Your task to perform on an android device: turn vacation reply on in the gmail app Image 0: 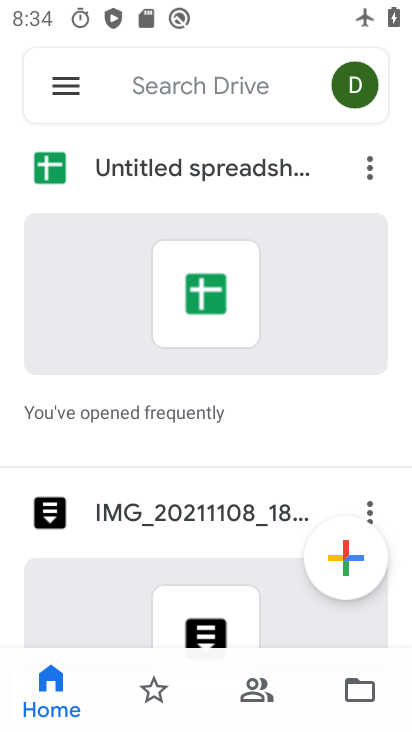
Step 0: press home button
Your task to perform on an android device: turn vacation reply on in the gmail app Image 1: 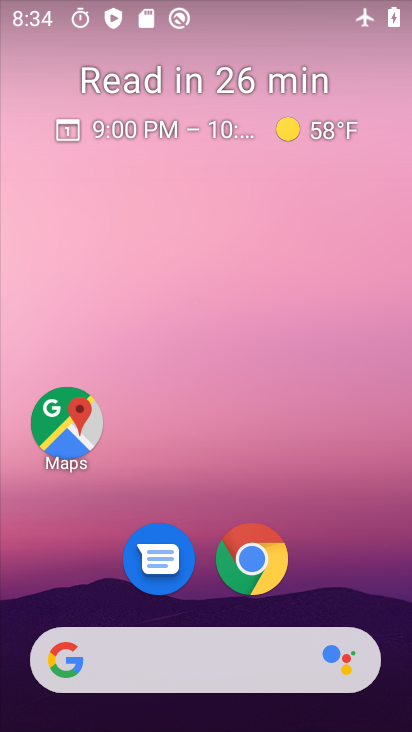
Step 1: drag from (332, 564) to (374, 75)
Your task to perform on an android device: turn vacation reply on in the gmail app Image 2: 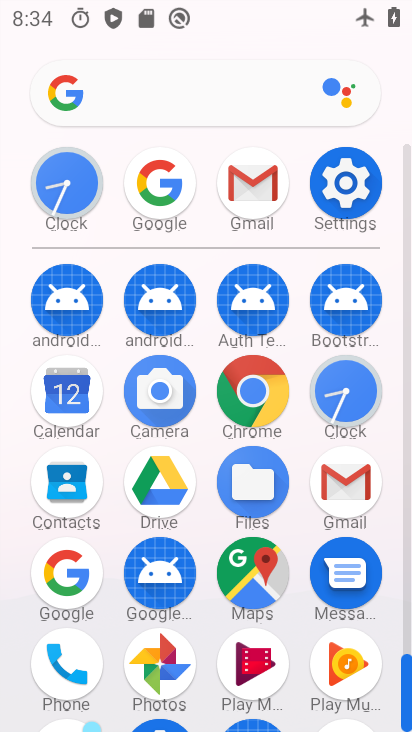
Step 2: click (334, 492)
Your task to perform on an android device: turn vacation reply on in the gmail app Image 3: 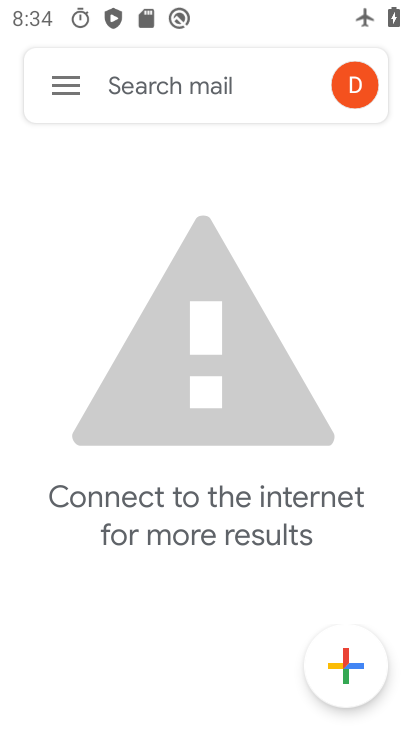
Step 3: click (61, 76)
Your task to perform on an android device: turn vacation reply on in the gmail app Image 4: 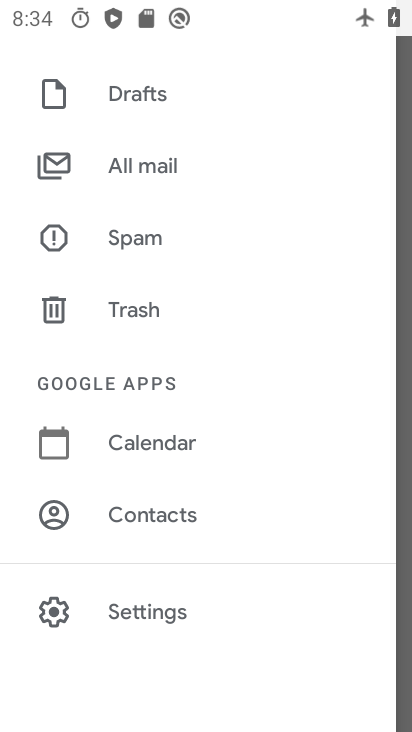
Step 4: click (138, 616)
Your task to perform on an android device: turn vacation reply on in the gmail app Image 5: 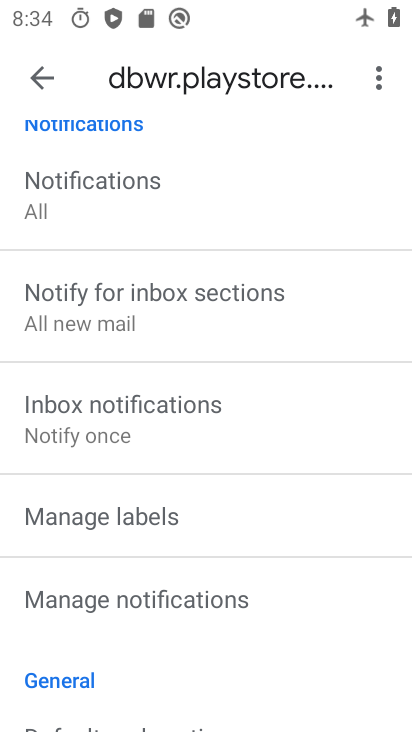
Step 5: drag from (126, 568) to (170, 293)
Your task to perform on an android device: turn vacation reply on in the gmail app Image 6: 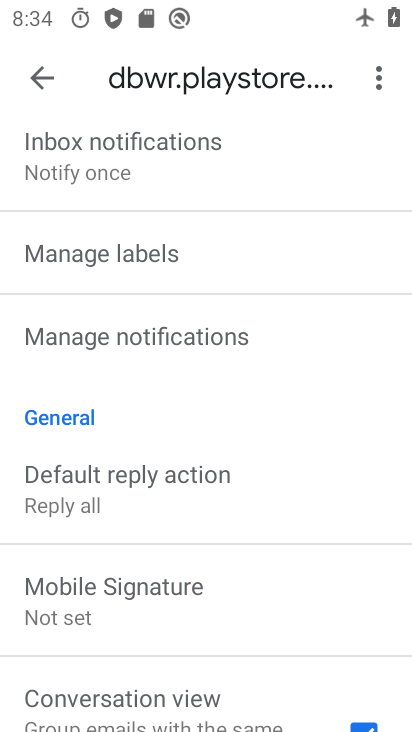
Step 6: drag from (95, 648) to (144, 357)
Your task to perform on an android device: turn vacation reply on in the gmail app Image 7: 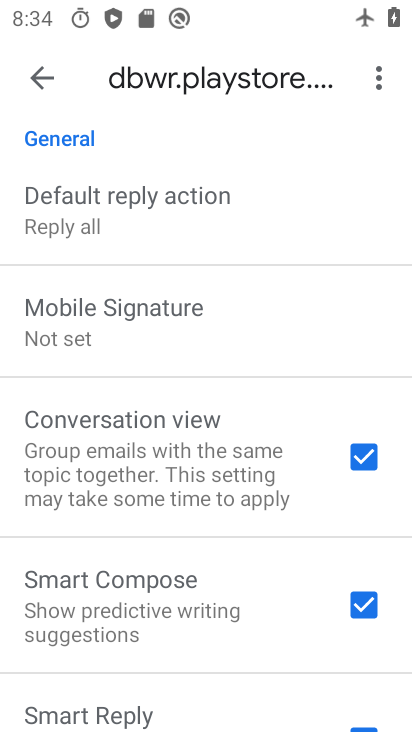
Step 7: drag from (135, 669) to (198, 411)
Your task to perform on an android device: turn vacation reply on in the gmail app Image 8: 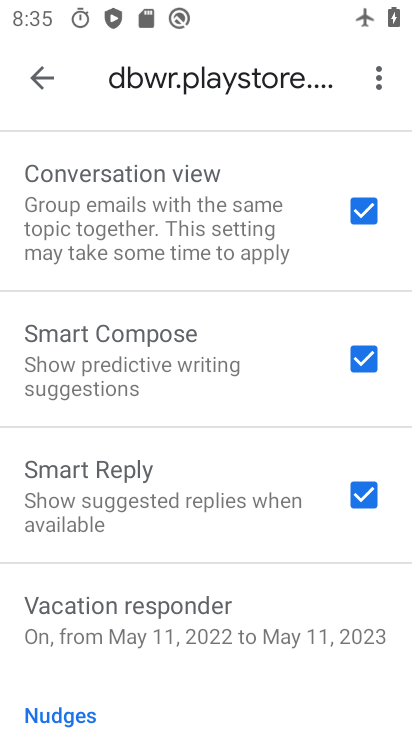
Step 8: click (140, 619)
Your task to perform on an android device: turn vacation reply on in the gmail app Image 9: 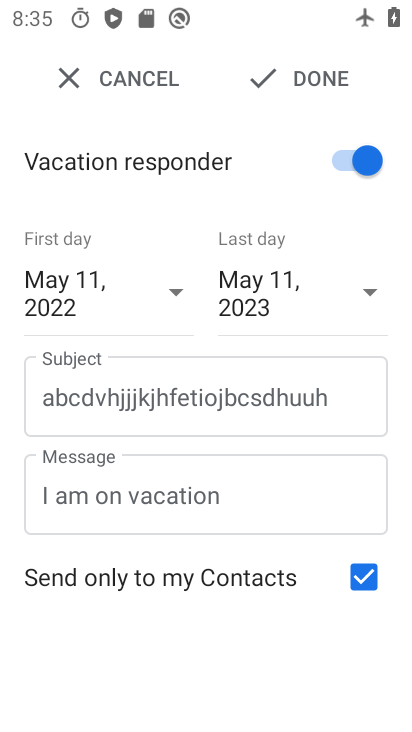
Step 9: task complete